Your task to perform on an android device: Search for custom t-shirts on Etsy. Image 0: 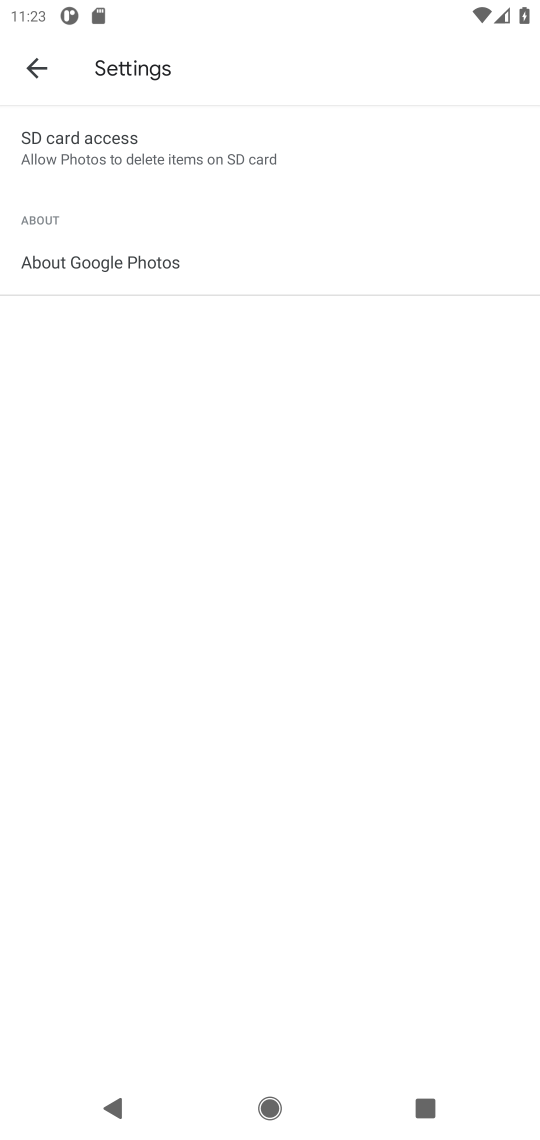
Step 0: press home button
Your task to perform on an android device: Search for custom t-shirts on Etsy. Image 1: 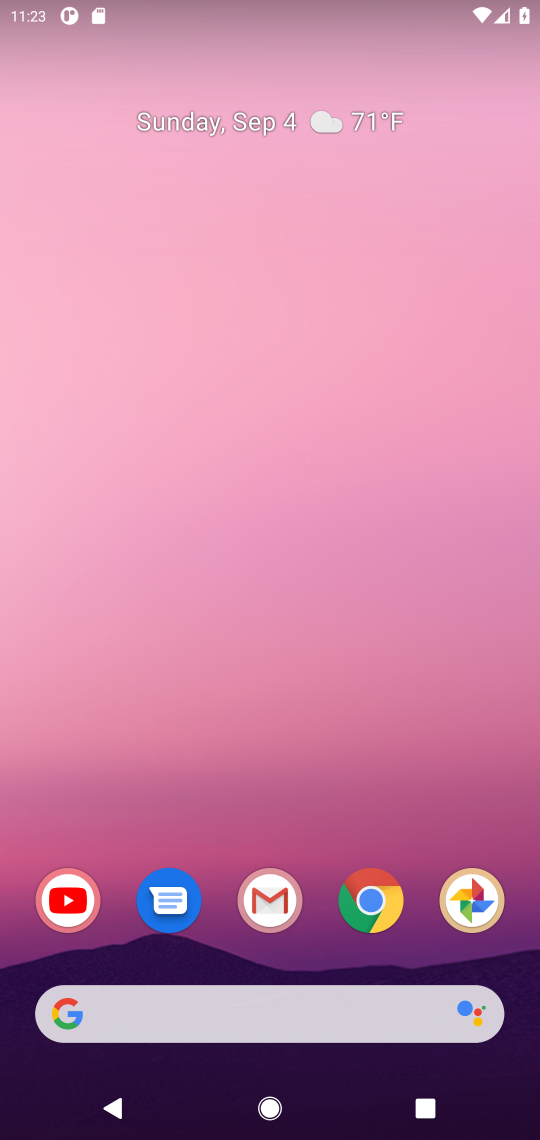
Step 1: click (369, 892)
Your task to perform on an android device: Search for custom t-shirts on Etsy. Image 2: 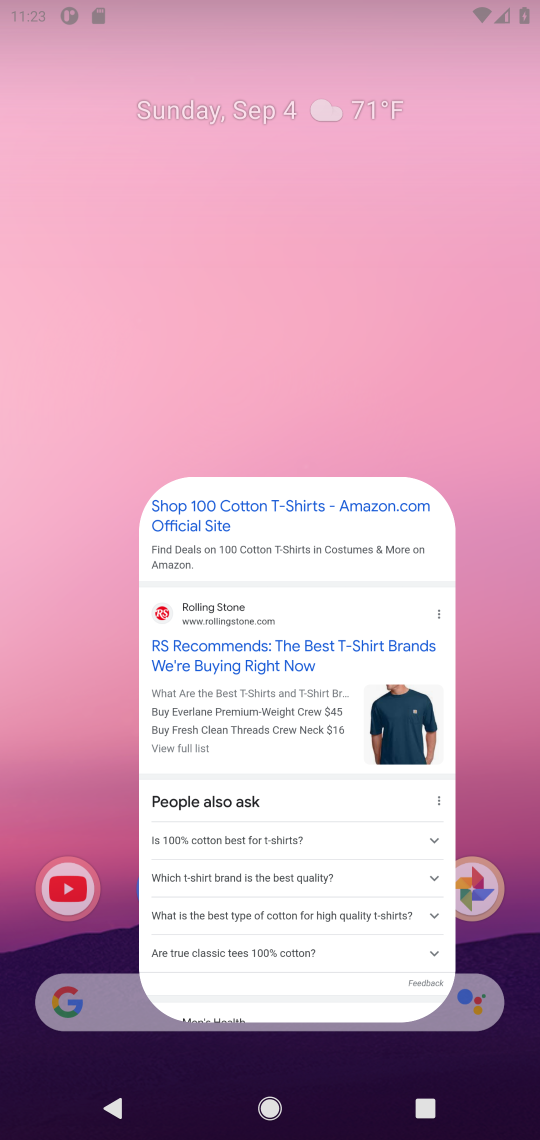
Step 2: drag from (369, 892) to (237, 69)
Your task to perform on an android device: Search for custom t-shirts on Etsy. Image 3: 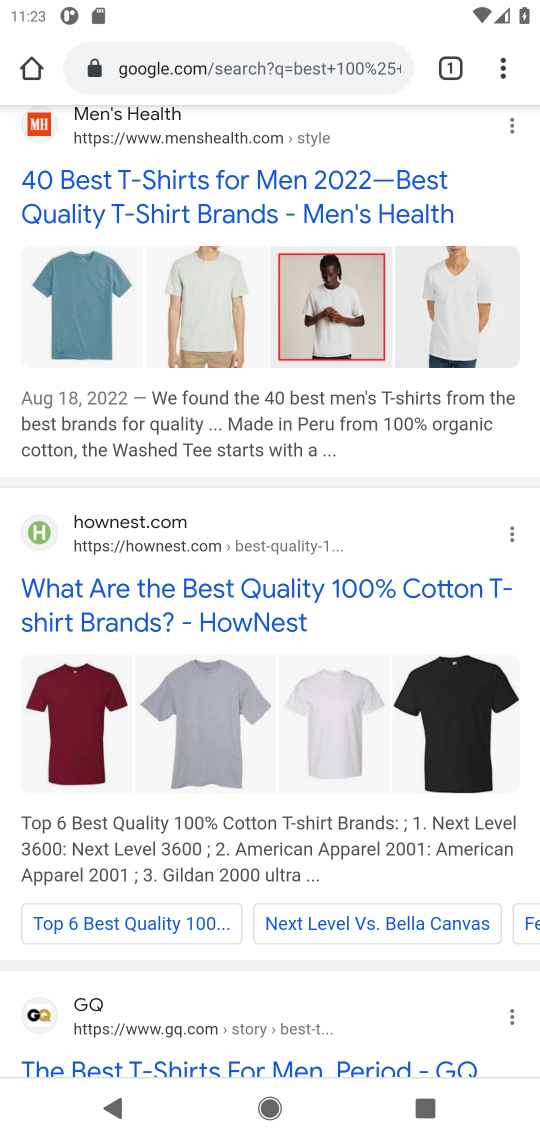
Step 3: click (253, 62)
Your task to perform on an android device: Search for custom t-shirts on Etsy. Image 4: 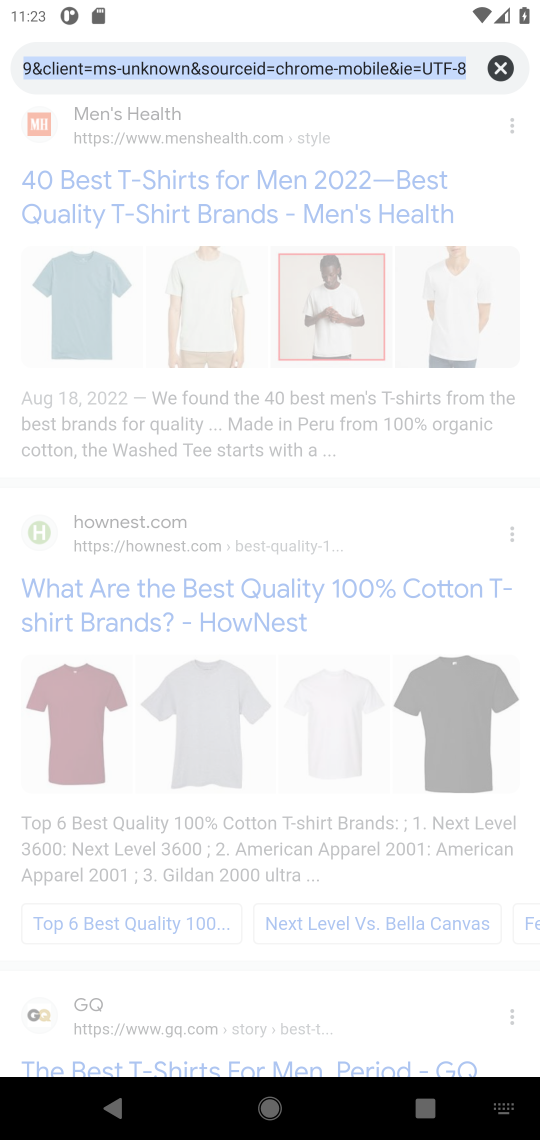
Step 4: click (495, 64)
Your task to perform on an android device: Search for custom t-shirts on Etsy. Image 5: 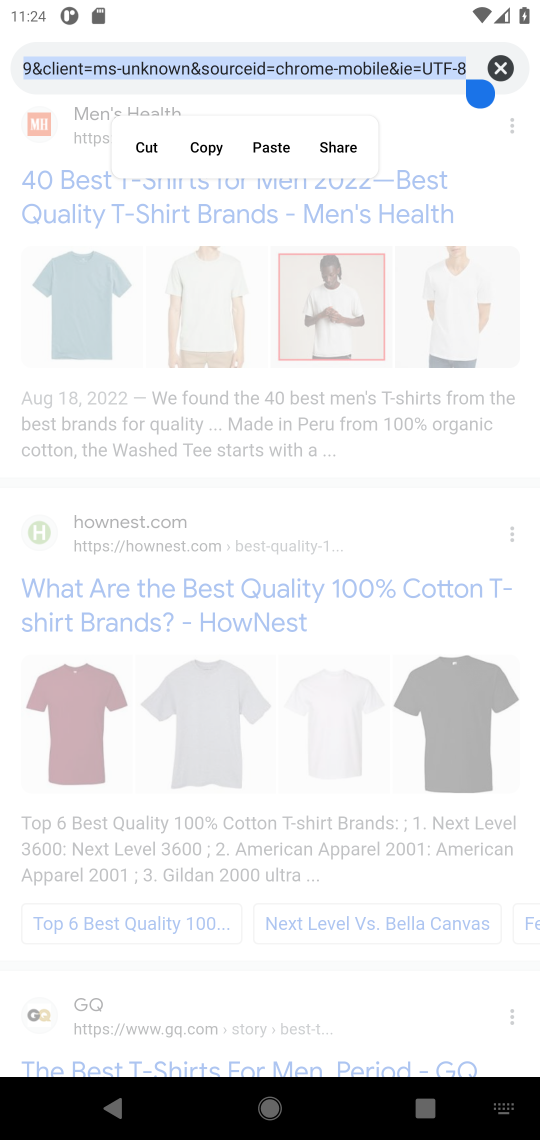
Step 5: click (503, 67)
Your task to perform on an android device: Search for custom t-shirts on Etsy. Image 6: 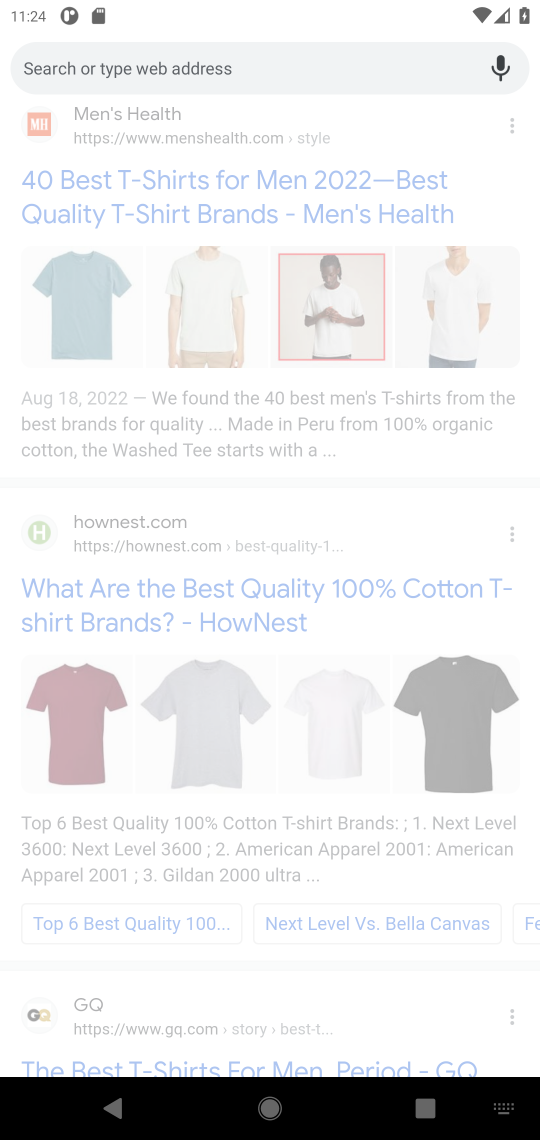
Step 6: click (314, 63)
Your task to perform on an android device: Search for custom t-shirts on Etsy. Image 7: 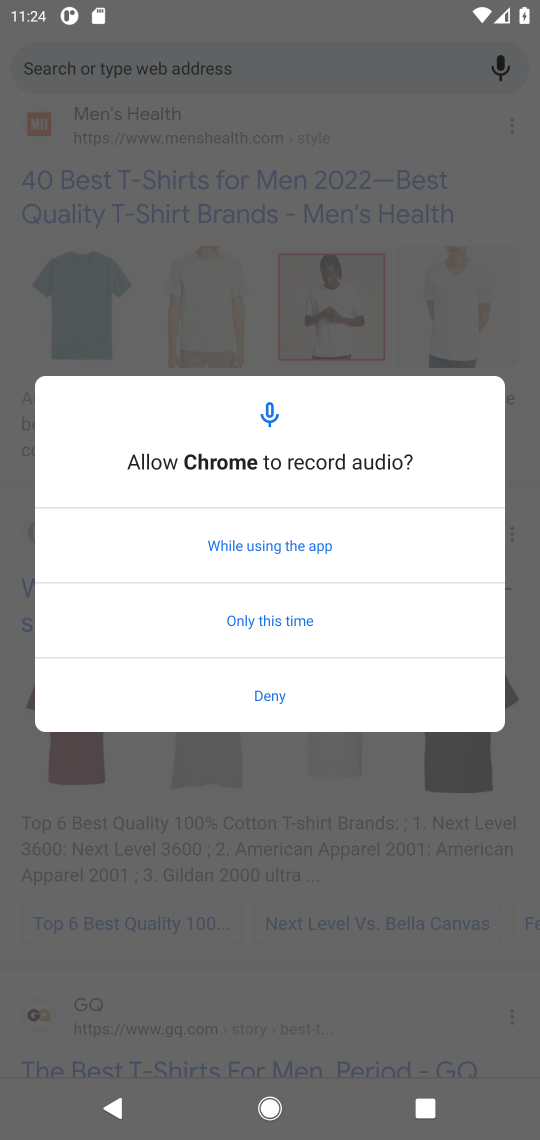
Step 7: click (174, 60)
Your task to perform on an android device: Search for custom t-shirts on Etsy. Image 8: 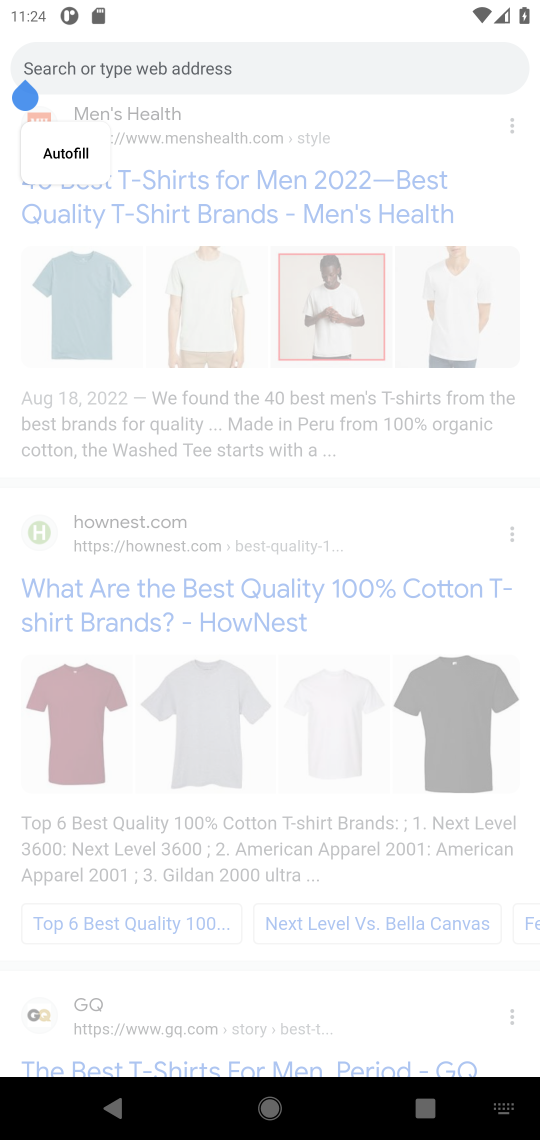
Step 8: click (104, 74)
Your task to perform on an android device: Search for custom t-shirts on Etsy. Image 9: 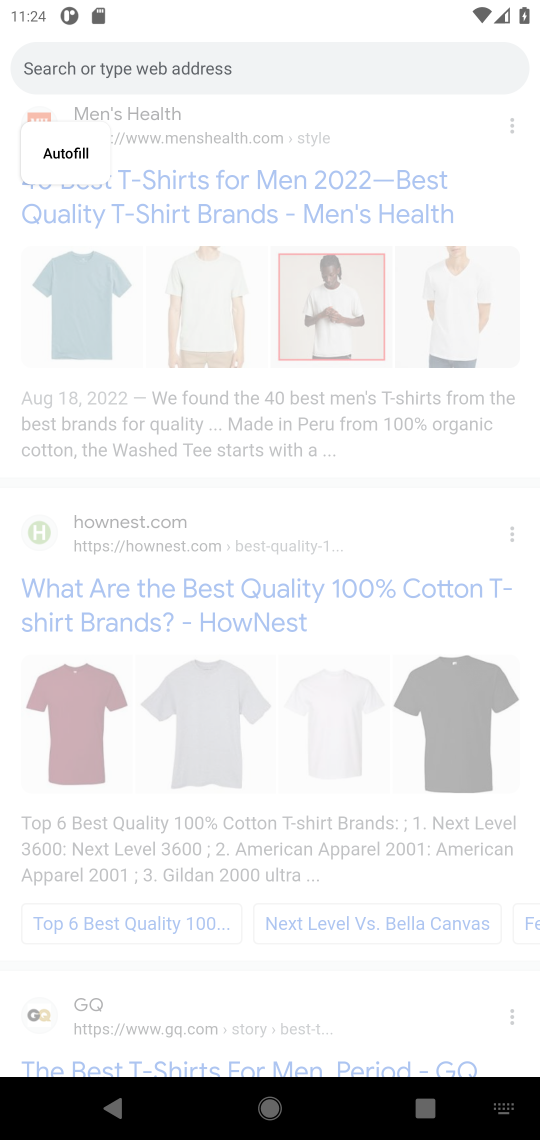
Step 9: click (49, 59)
Your task to perform on an android device: Search for custom t-shirts on Etsy. Image 10: 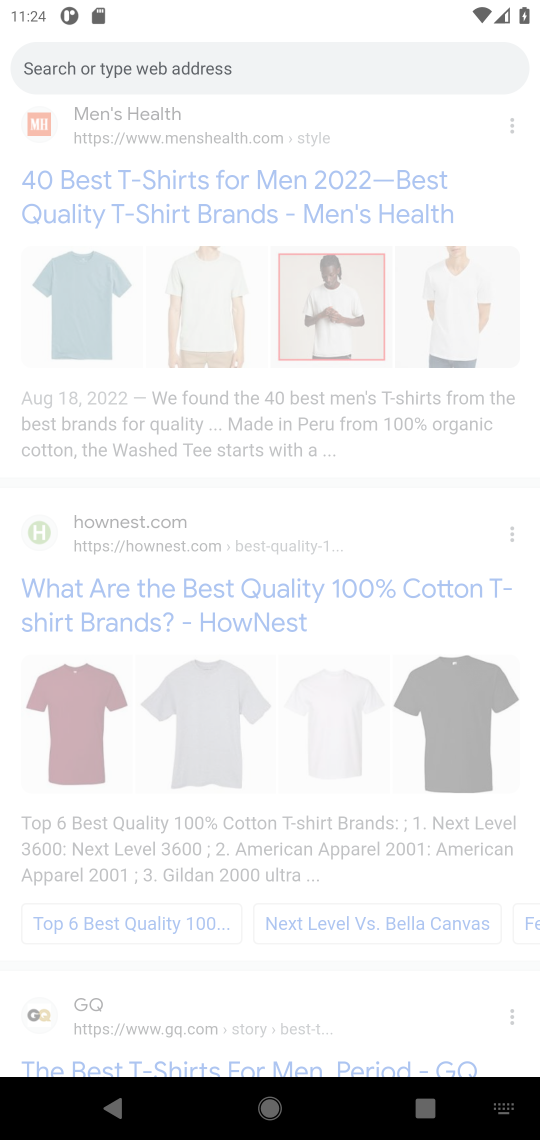
Step 10: type " Etsy"
Your task to perform on an android device: Search for custom t-shirts on Etsy. Image 11: 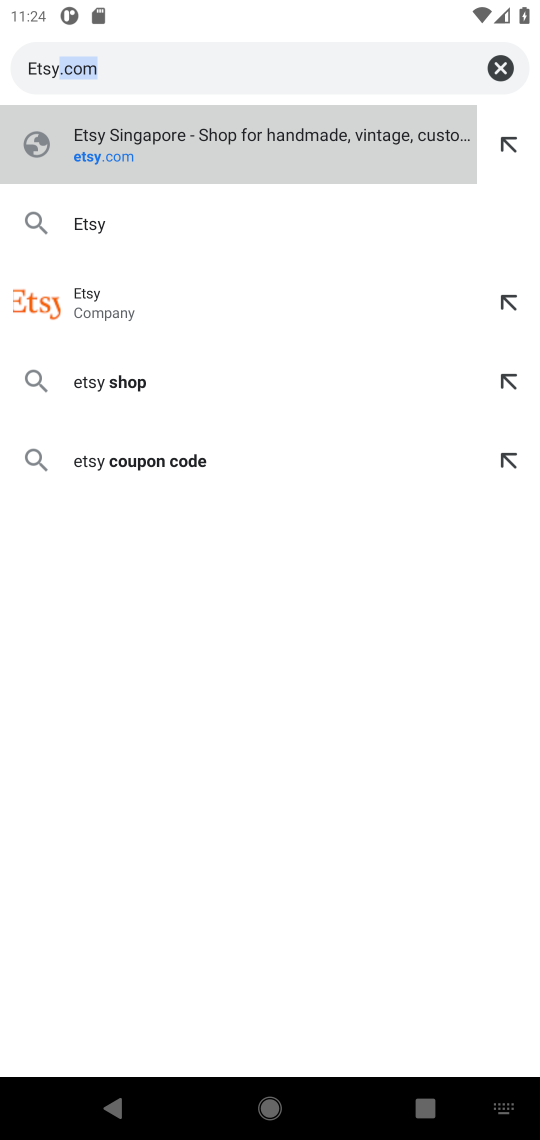
Step 11: press enter
Your task to perform on an android device: Search for custom t-shirts on Etsy. Image 12: 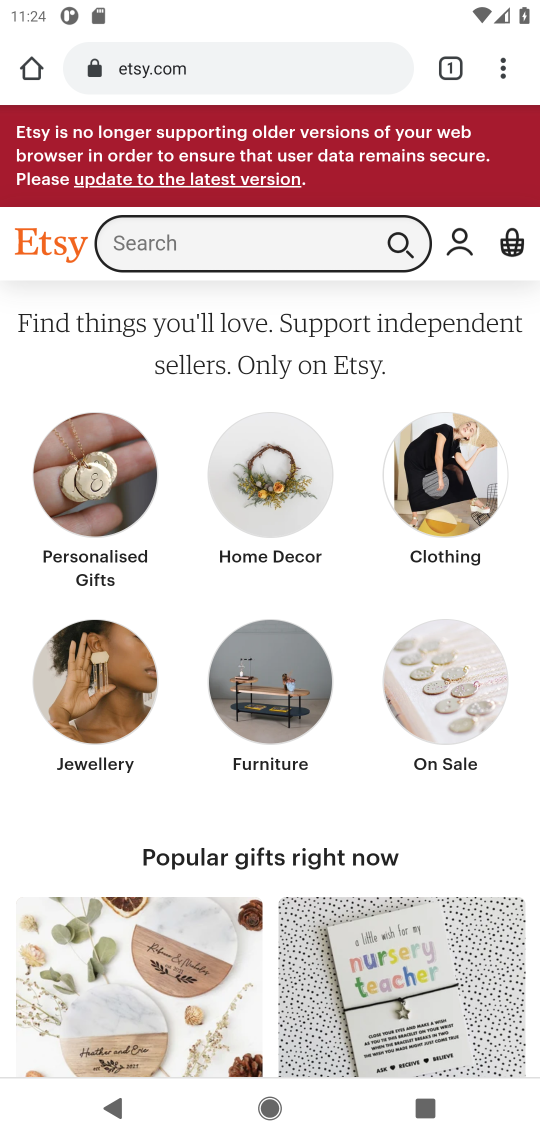
Step 12: click (228, 251)
Your task to perform on an android device: Search for custom t-shirts on Etsy. Image 13: 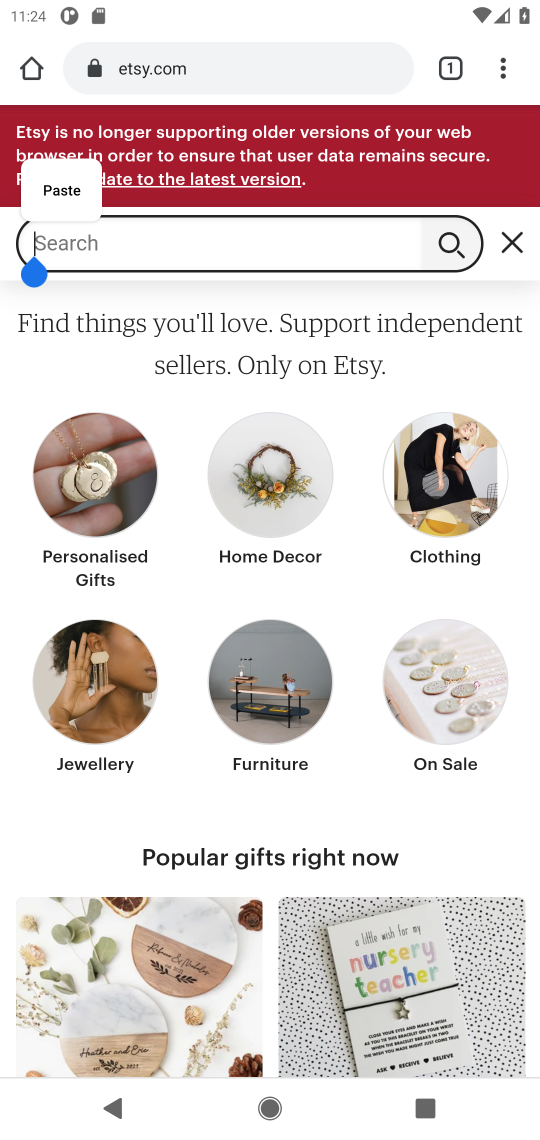
Step 13: press enter
Your task to perform on an android device: Search for custom t-shirts on Etsy. Image 14: 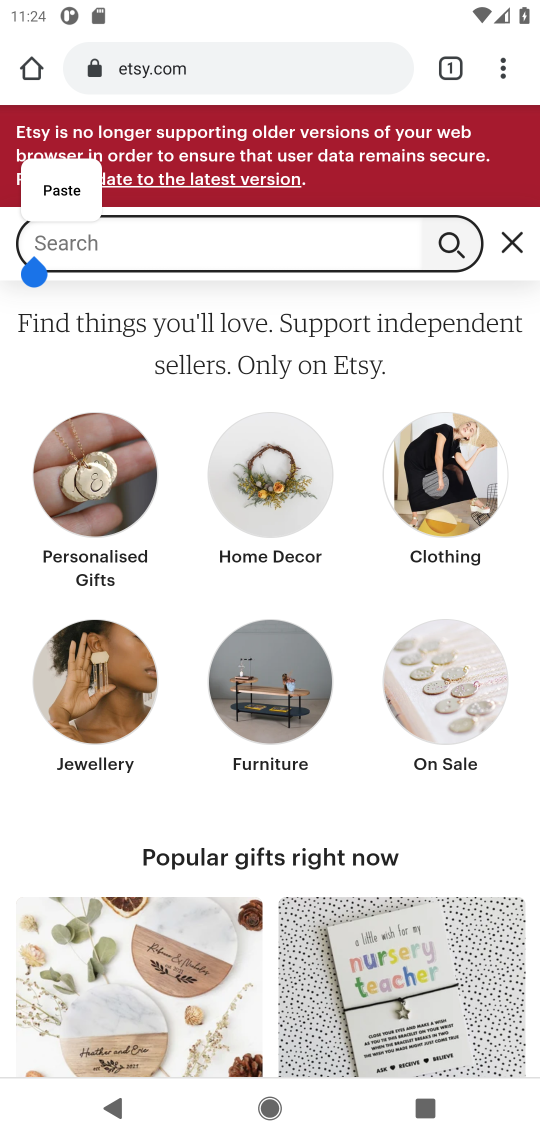
Step 14: type "custom t-shirts "
Your task to perform on an android device: Search for custom t-shirts on Etsy. Image 15: 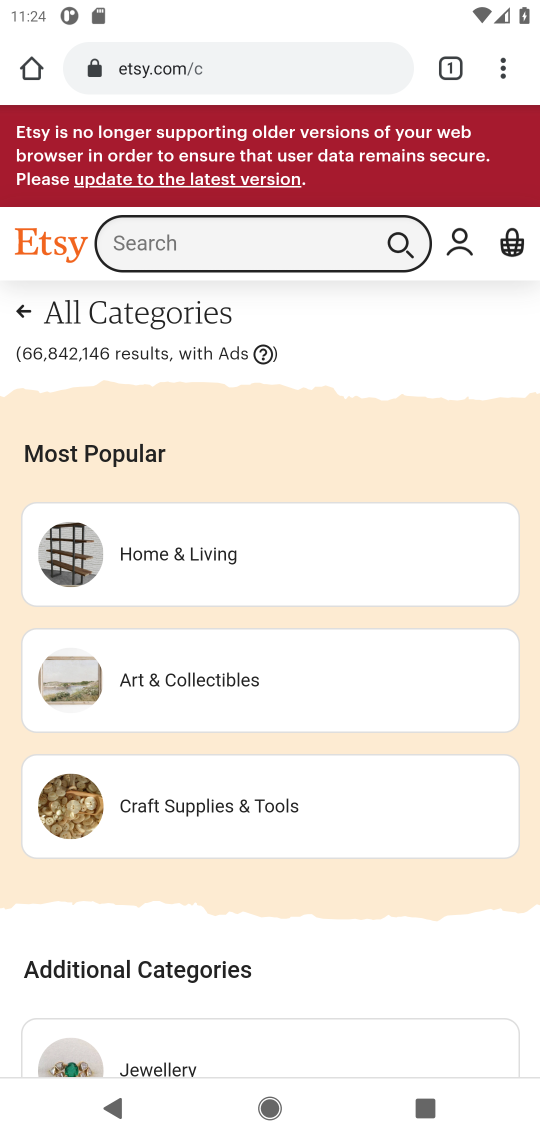
Step 15: click (287, 232)
Your task to perform on an android device: Search for custom t-shirts on Etsy. Image 16: 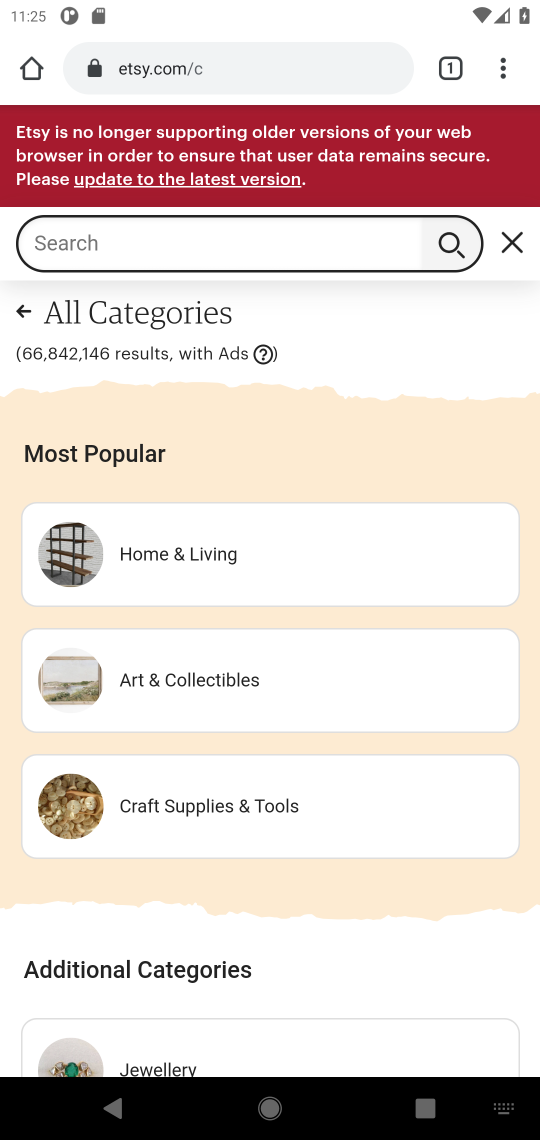
Step 16: type "custom t-shirts "
Your task to perform on an android device: Search for custom t-shirts on Etsy. Image 17: 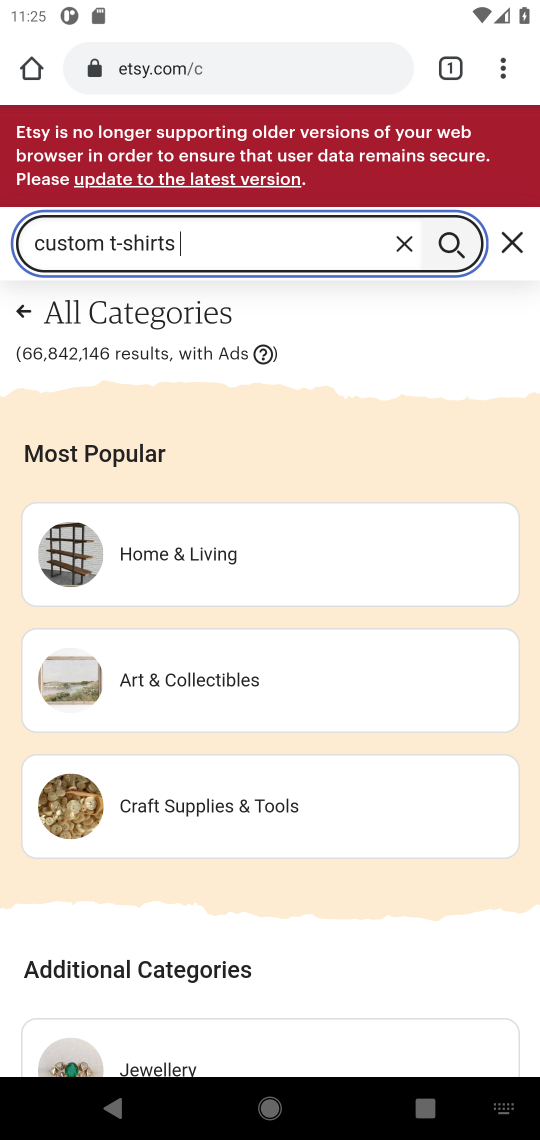
Step 17: press enter
Your task to perform on an android device: Search for custom t-shirts on Etsy. Image 18: 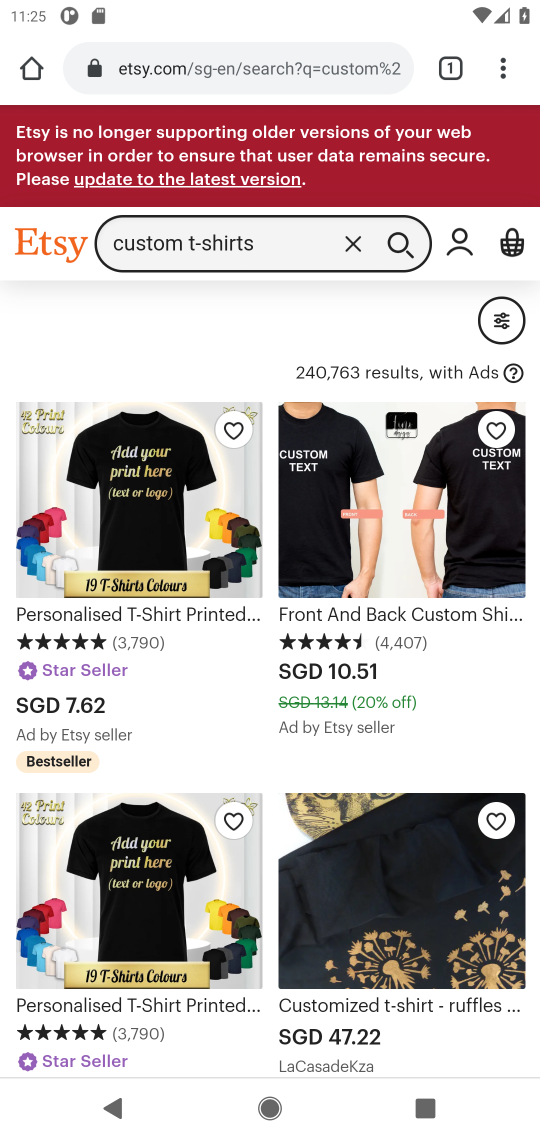
Step 18: drag from (260, 876) to (407, 164)
Your task to perform on an android device: Search for custom t-shirts on Etsy. Image 19: 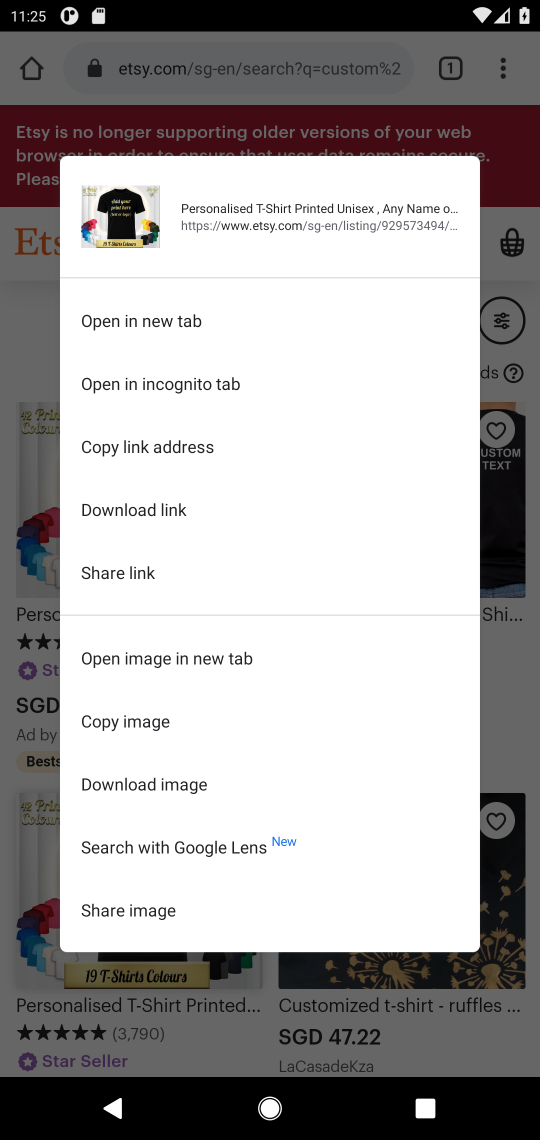
Step 19: click (506, 701)
Your task to perform on an android device: Search for custom t-shirts on Etsy. Image 20: 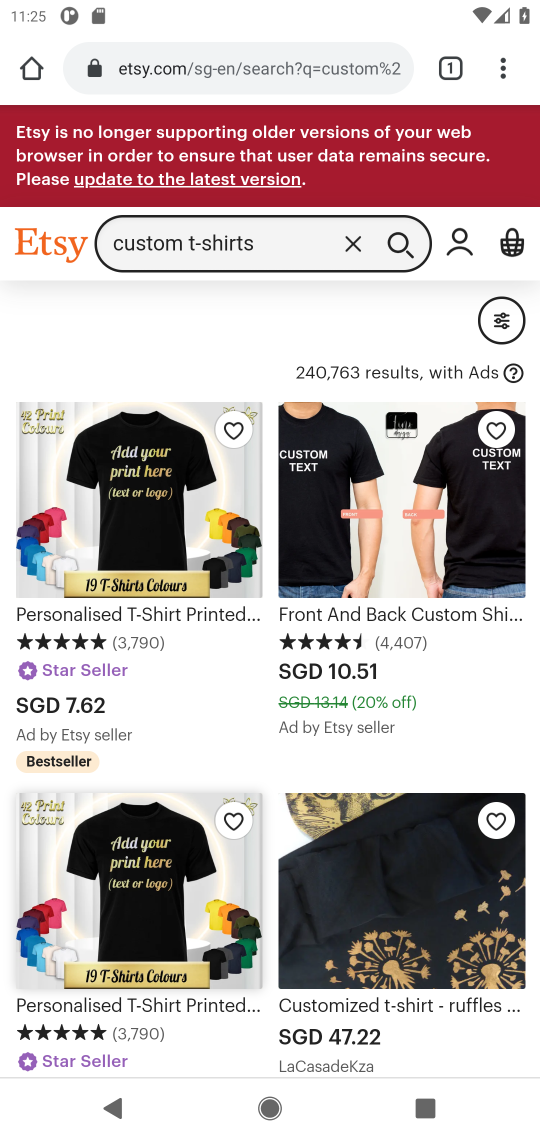
Step 20: task complete